Your task to perform on an android device: Open Amazon Image 0: 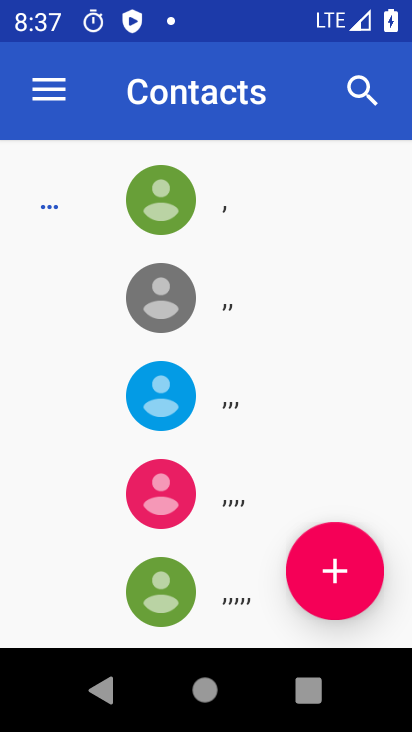
Step 0: press home button
Your task to perform on an android device: Open Amazon Image 1: 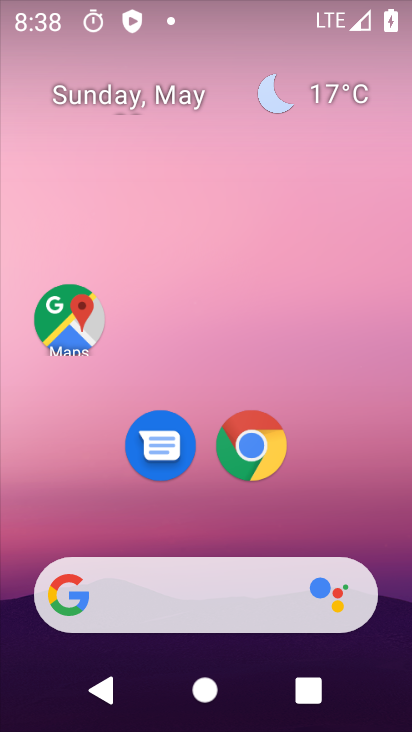
Step 1: drag from (205, 545) to (265, 161)
Your task to perform on an android device: Open Amazon Image 2: 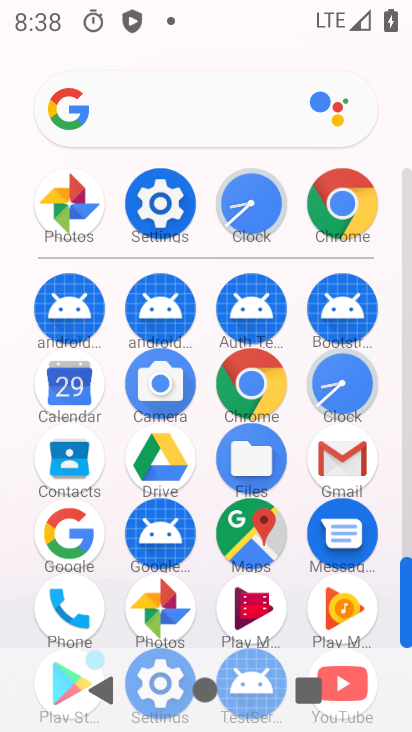
Step 2: click (200, 106)
Your task to perform on an android device: Open Amazon Image 3: 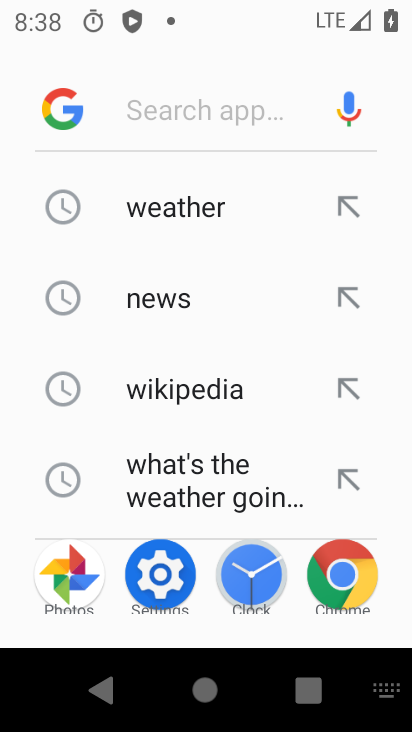
Step 3: type "Amazon"
Your task to perform on an android device: Open Amazon Image 4: 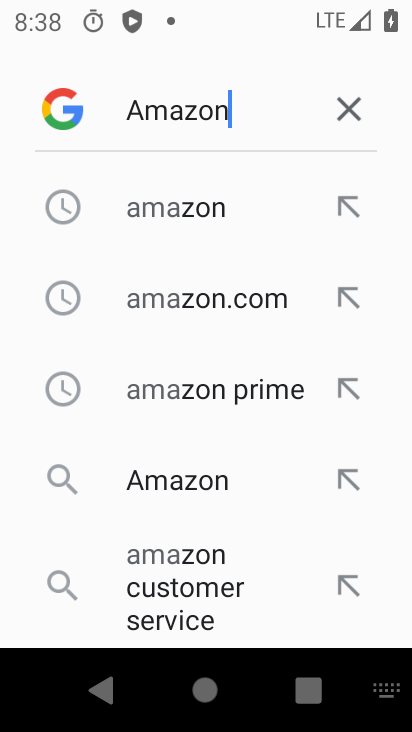
Step 4: type ""
Your task to perform on an android device: Open Amazon Image 5: 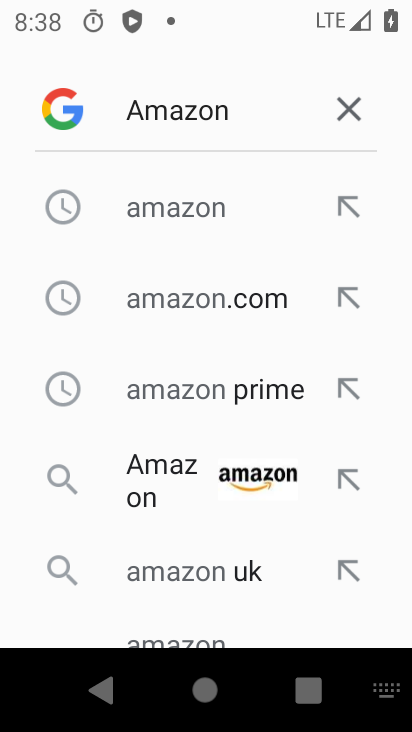
Step 5: click (172, 511)
Your task to perform on an android device: Open Amazon Image 6: 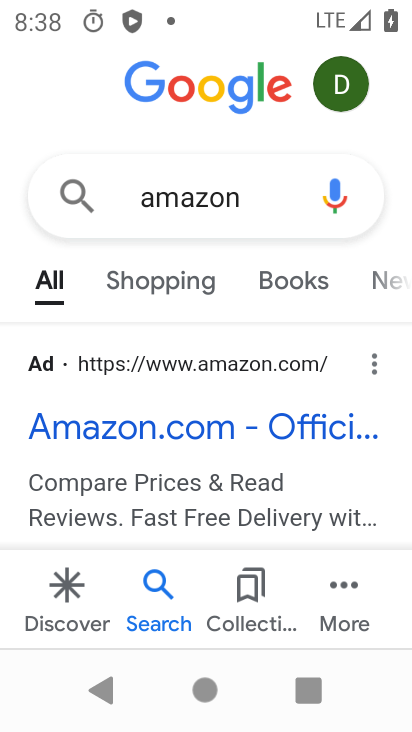
Step 6: click (154, 425)
Your task to perform on an android device: Open Amazon Image 7: 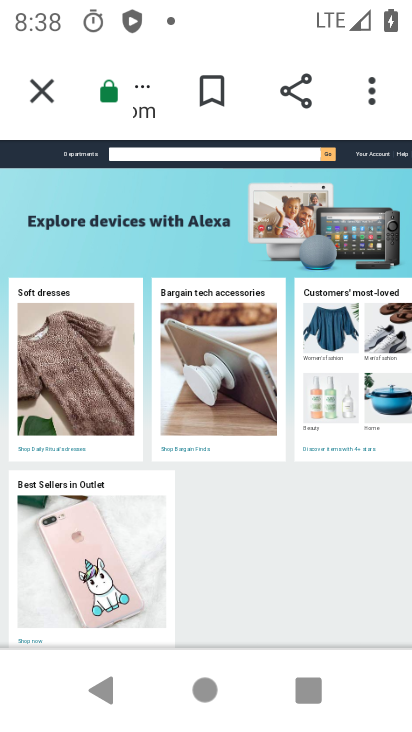
Step 7: task complete